Your task to perform on an android device: open device folders in google photos Image 0: 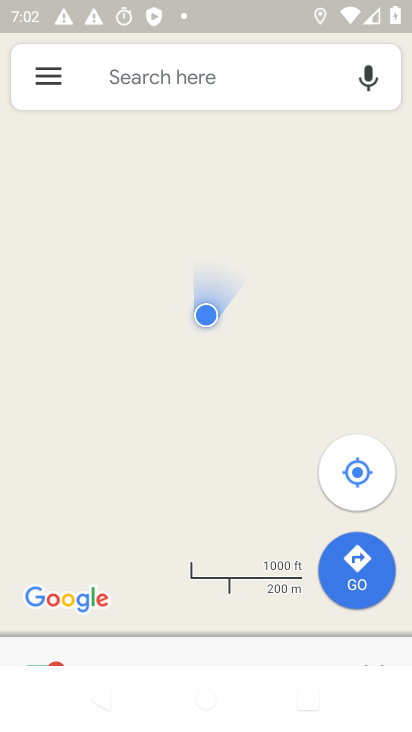
Step 0: press home button
Your task to perform on an android device: open device folders in google photos Image 1: 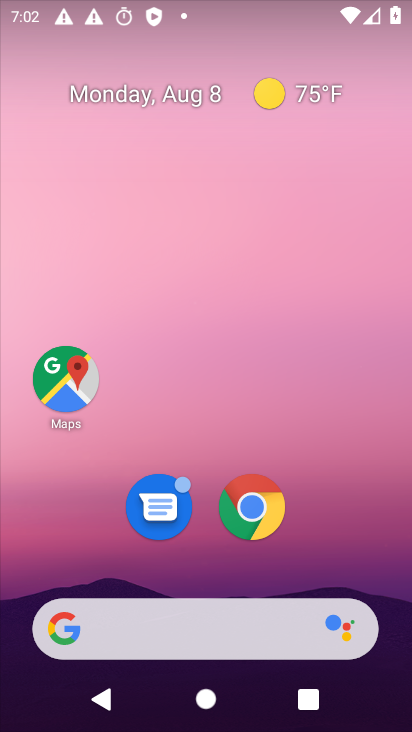
Step 1: drag from (294, 552) to (324, 139)
Your task to perform on an android device: open device folders in google photos Image 2: 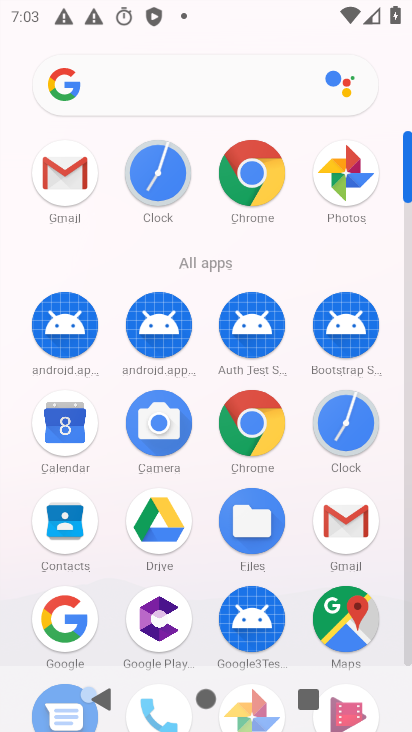
Step 2: drag from (198, 559) to (196, 416)
Your task to perform on an android device: open device folders in google photos Image 3: 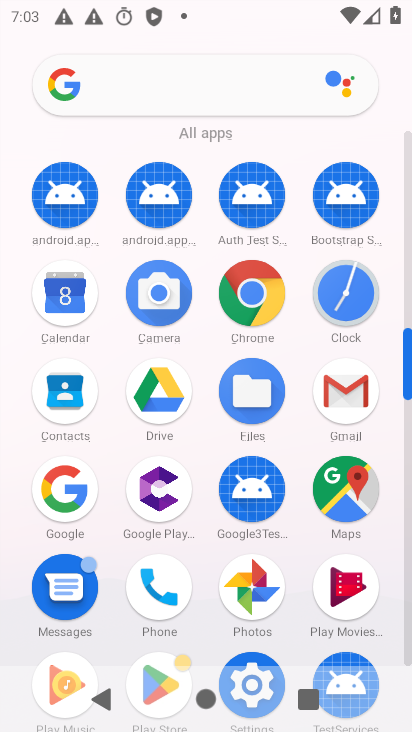
Step 3: click (265, 589)
Your task to perform on an android device: open device folders in google photos Image 4: 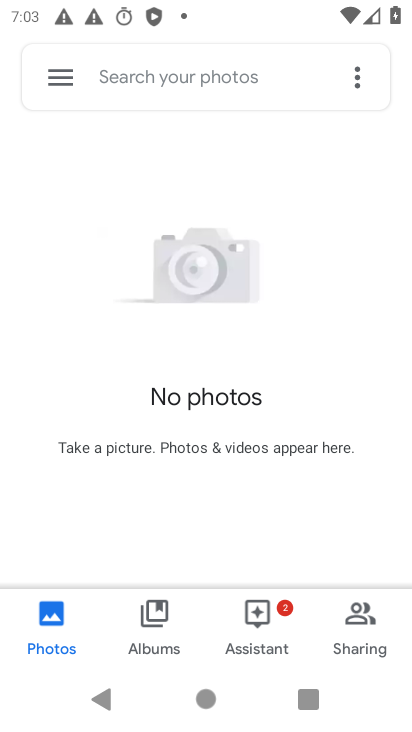
Step 4: click (178, 76)
Your task to perform on an android device: open device folders in google photos Image 5: 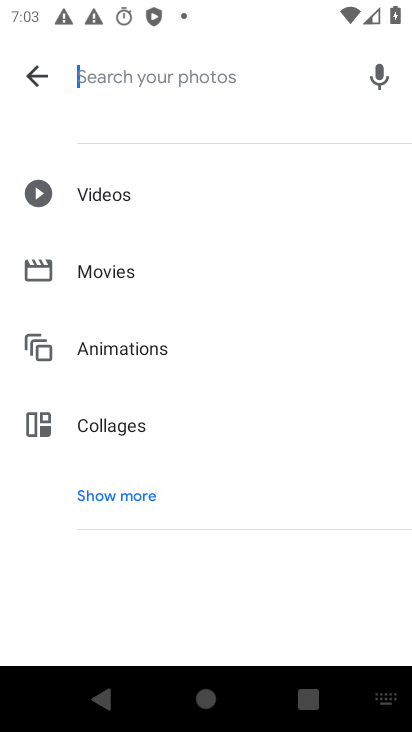
Step 5: click (159, 81)
Your task to perform on an android device: open device folders in google photos Image 6: 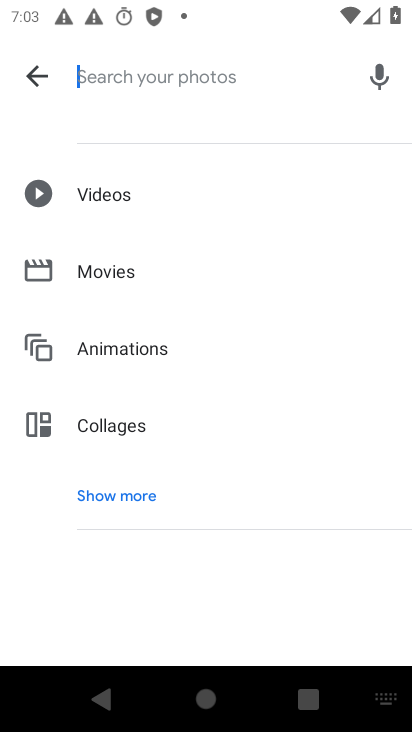
Step 6: click (386, 712)
Your task to perform on an android device: open device folders in google photos Image 7: 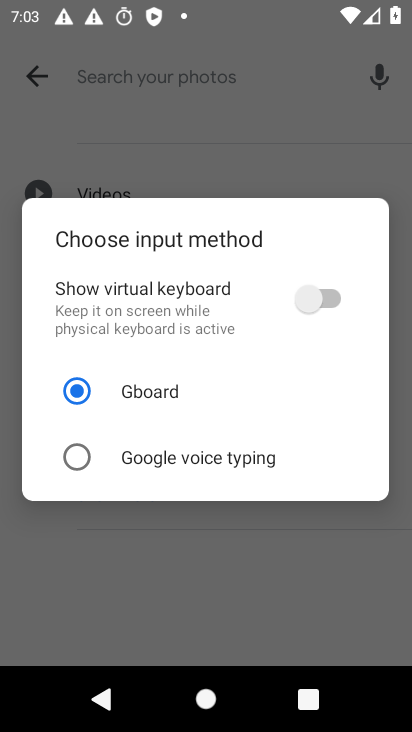
Step 7: click (319, 298)
Your task to perform on an android device: open device folders in google photos Image 8: 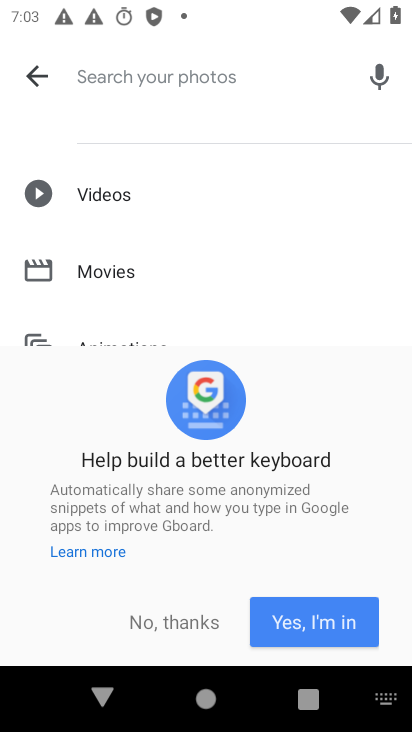
Step 8: click (181, 624)
Your task to perform on an android device: open device folders in google photos Image 9: 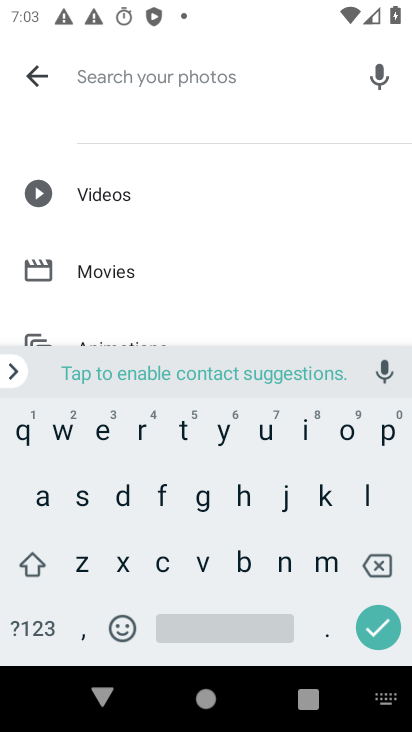
Step 9: click (122, 488)
Your task to perform on an android device: open device folders in google photos Image 10: 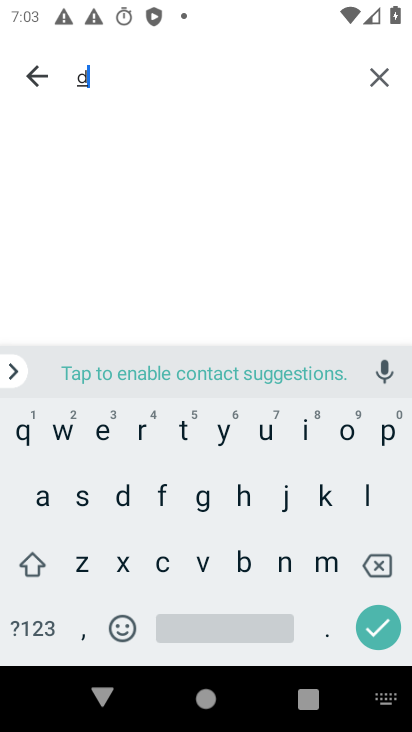
Step 10: click (98, 432)
Your task to perform on an android device: open device folders in google photos Image 11: 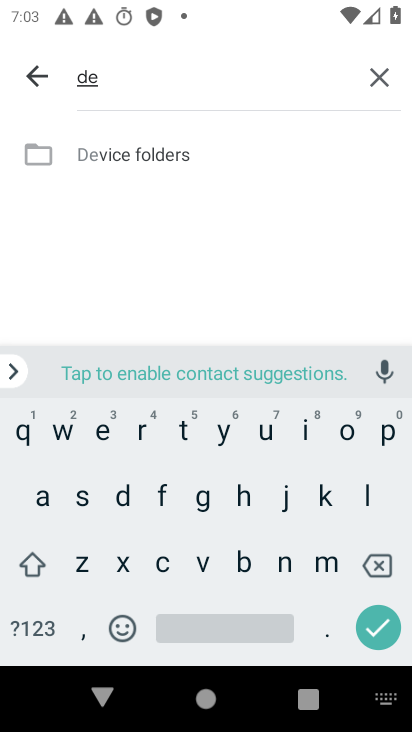
Step 11: click (159, 156)
Your task to perform on an android device: open device folders in google photos Image 12: 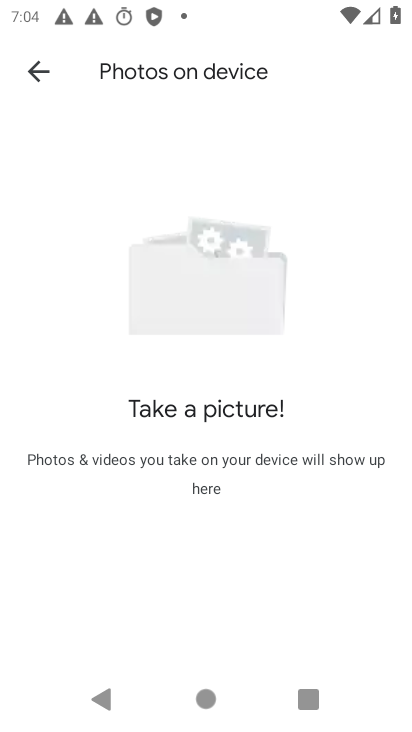
Step 12: task complete